Your task to perform on an android device: find photos in the google photos app Image 0: 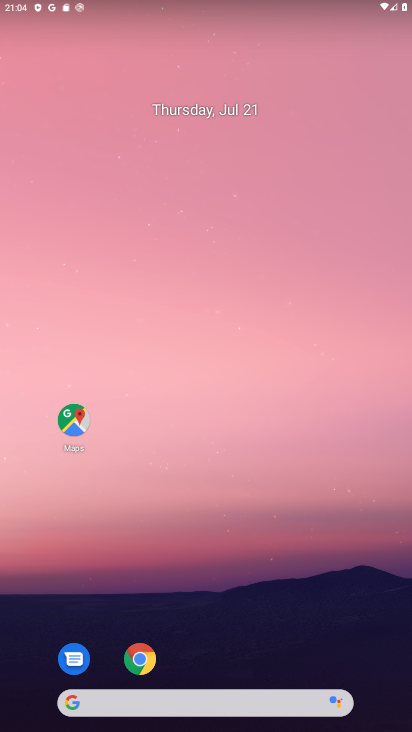
Step 0: press home button
Your task to perform on an android device: find photos in the google photos app Image 1: 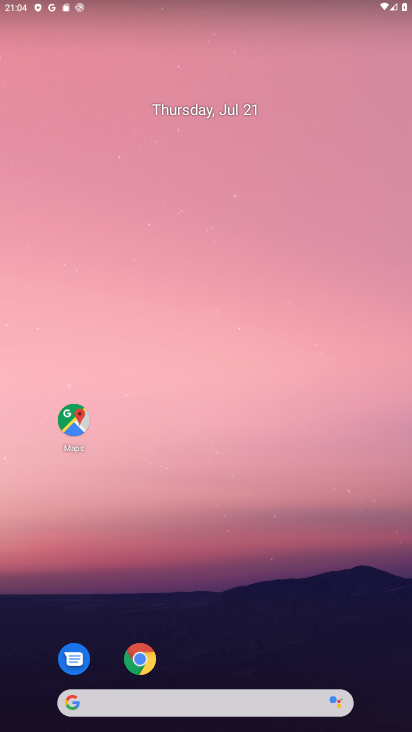
Step 1: drag from (244, 721) to (244, 191)
Your task to perform on an android device: find photos in the google photos app Image 2: 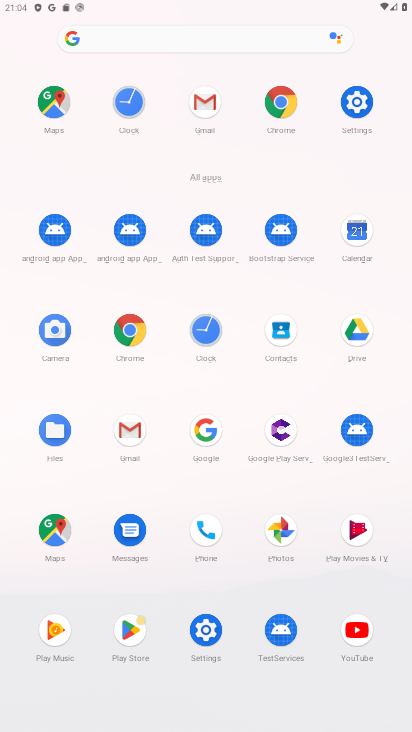
Step 2: click (278, 528)
Your task to perform on an android device: find photos in the google photos app Image 3: 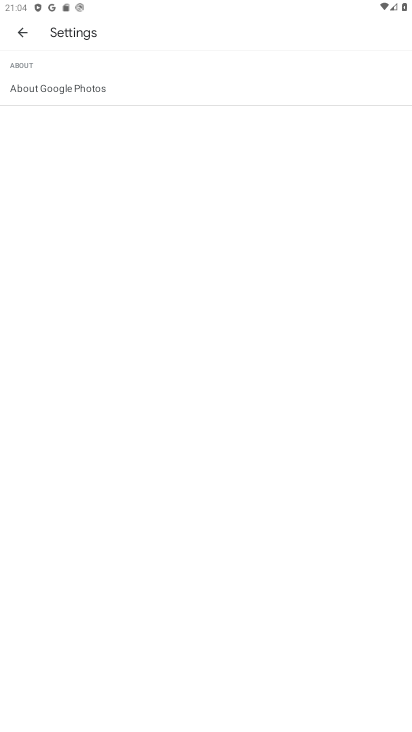
Step 3: click (26, 31)
Your task to perform on an android device: find photos in the google photos app Image 4: 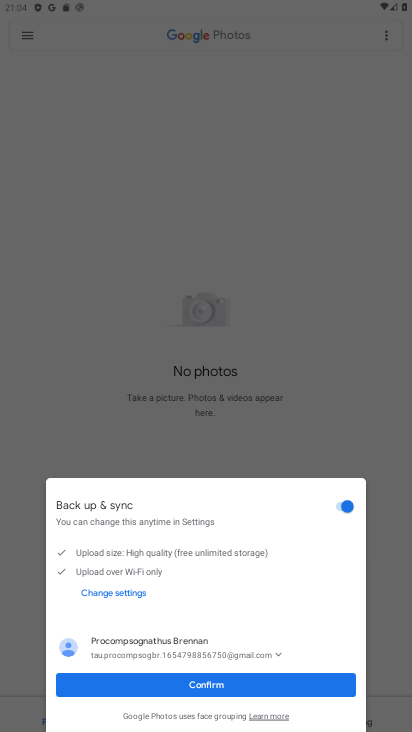
Step 4: click (224, 676)
Your task to perform on an android device: find photos in the google photos app Image 5: 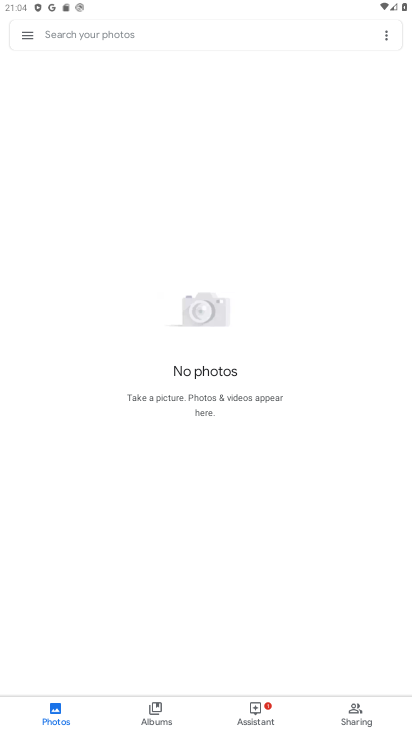
Step 5: task complete